Your task to perform on an android device: Turn off the flashlight Image 0: 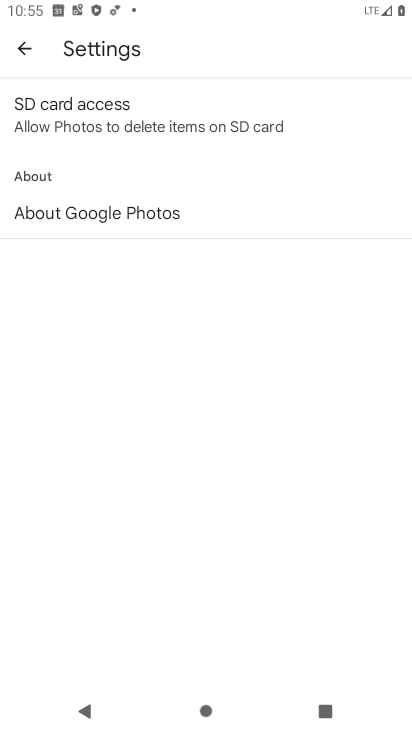
Step 0: press home button
Your task to perform on an android device: Turn off the flashlight Image 1: 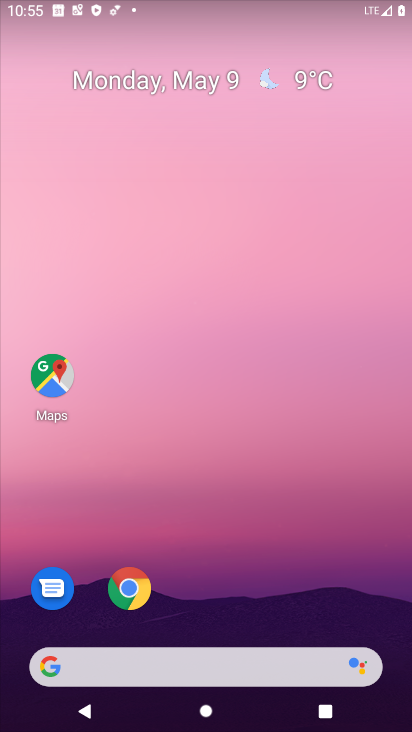
Step 1: task complete